Your task to perform on an android device: turn off javascript in the chrome app Image 0: 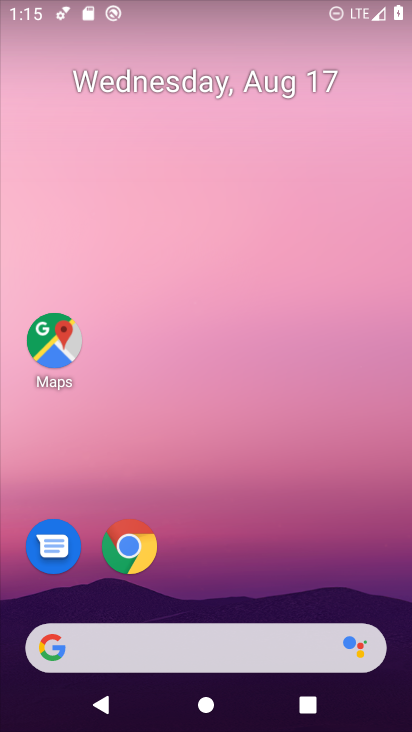
Step 0: click (135, 546)
Your task to perform on an android device: turn off javascript in the chrome app Image 1: 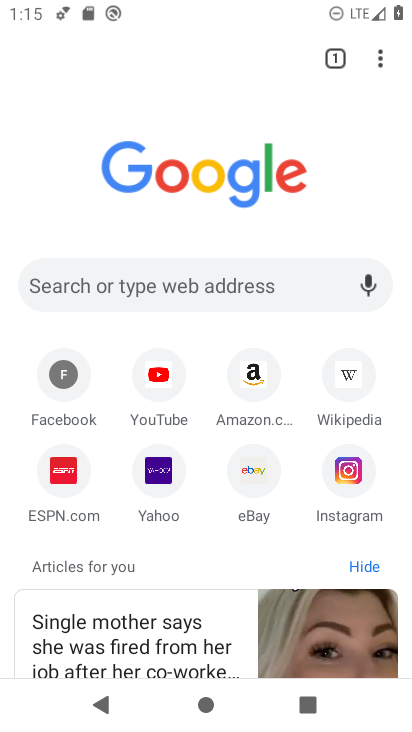
Step 1: click (382, 58)
Your task to perform on an android device: turn off javascript in the chrome app Image 2: 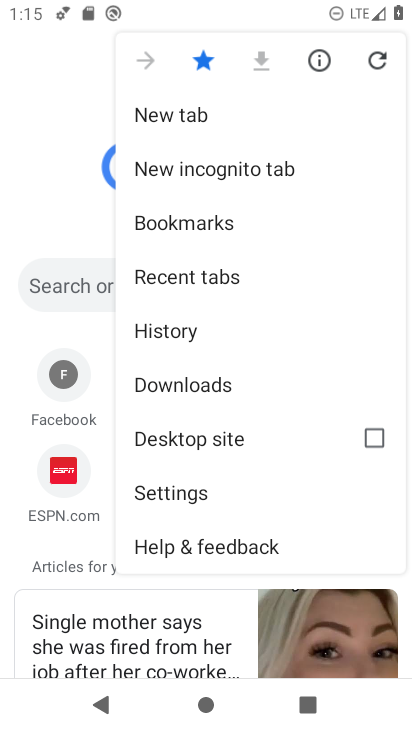
Step 2: click (183, 494)
Your task to perform on an android device: turn off javascript in the chrome app Image 3: 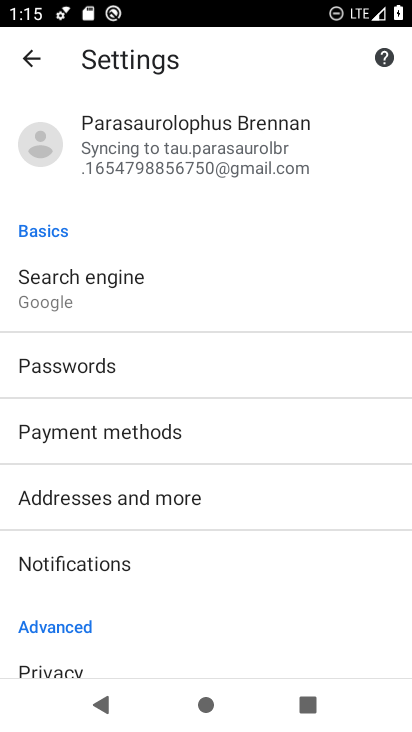
Step 3: drag from (229, 613) to (213, 302)
Your task to perform on an android device: turn off javascript in the chrome app Image 4: 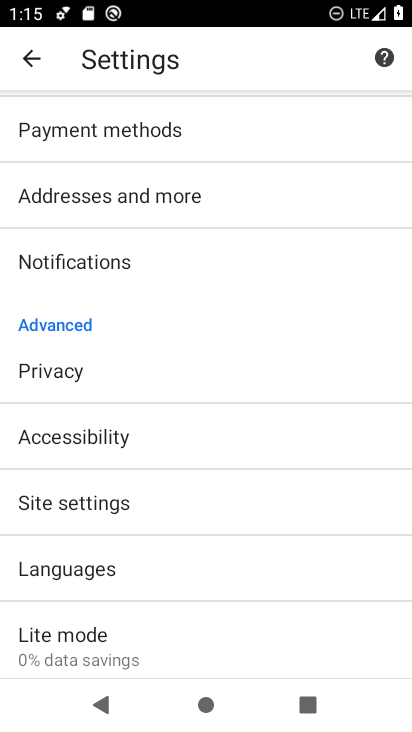
Step 4: click (72, 504)
Your task to perform on an android device: turn off javascript in the chrome app Image 5: 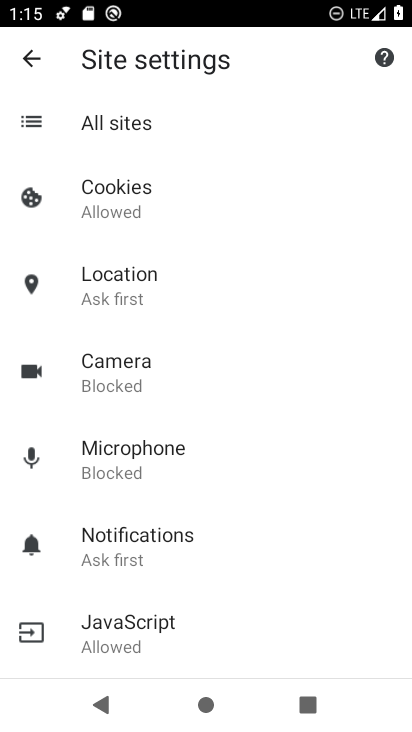
Step 5: click (133, 622)
Your task to perform on an android device: turn off javascript in the chrome app Image 6: 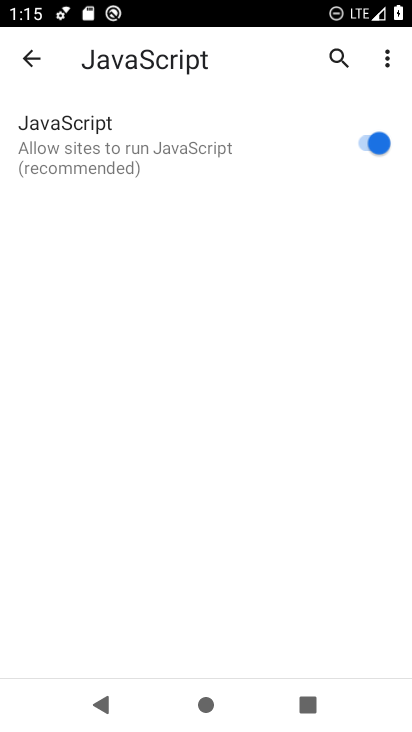
Step 6: click (381, 142)
Your task to perform on an android device: turn off javascript in the chrome app Image 7: 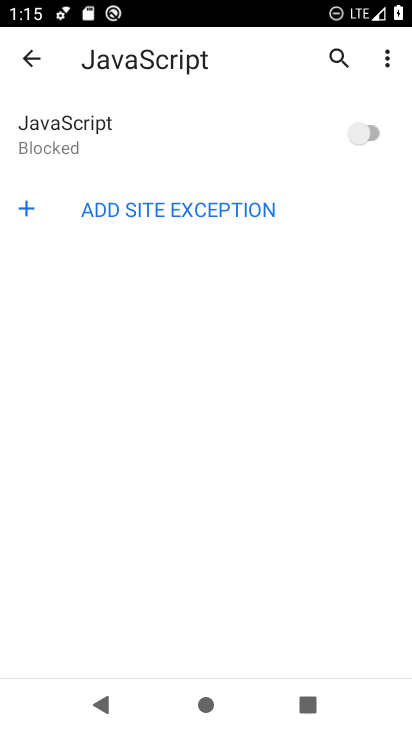
Step 7: task complete